Your task to perform on an android device: toggle notifications settings in the gmail app Image 0: 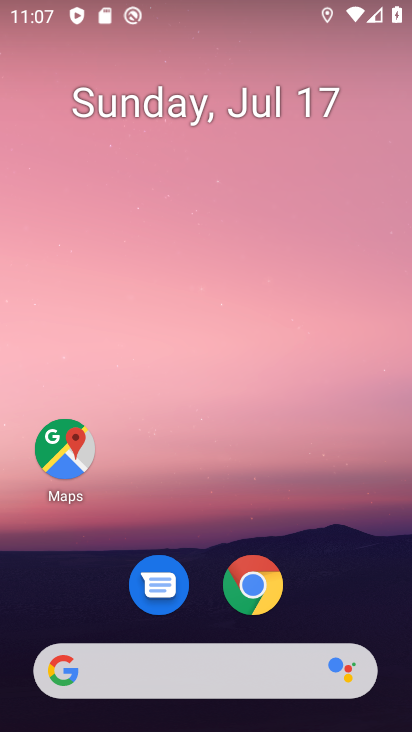
Step 0: drag from (320, 568) to (281, 9)
Your task to perform on an android device: toggle notifications settings in the gmail app Image 1: 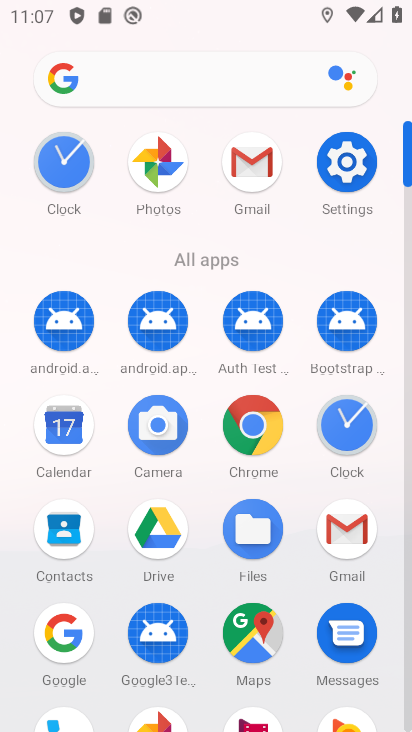
Step 1: click (251, 170)
Your task to perform on an android device: toggle notifications settings in the gmail app Image 2: 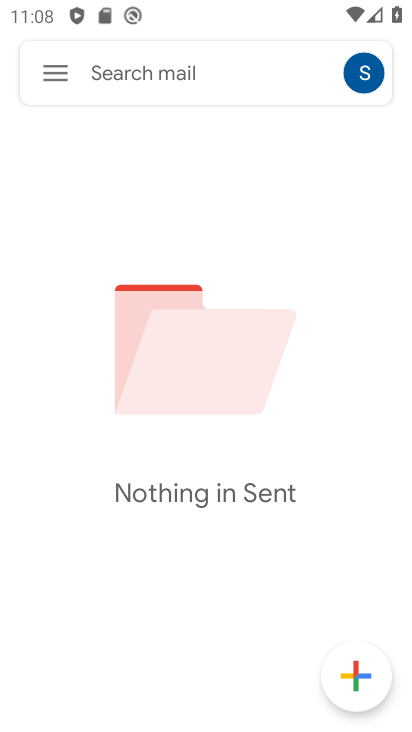
Step 2: press home button
Your task to perform on an android device: toggle notifications settings in the gmail app Image 3: 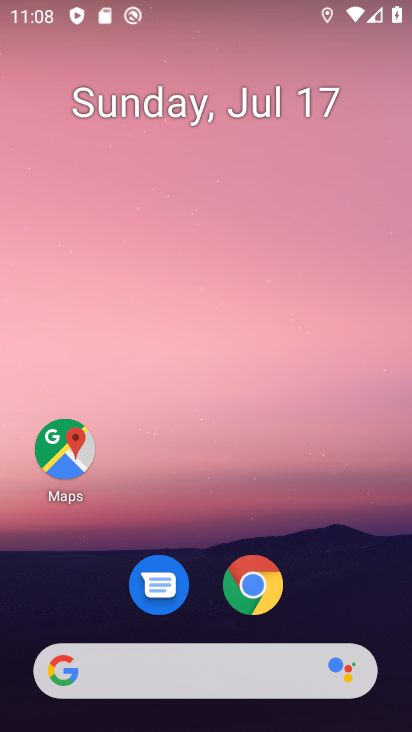
Step 3: drag from (306, 591) to (338, 41)
Your task to perform on an android device: toggle notifications settings in the gmail app Image 4: 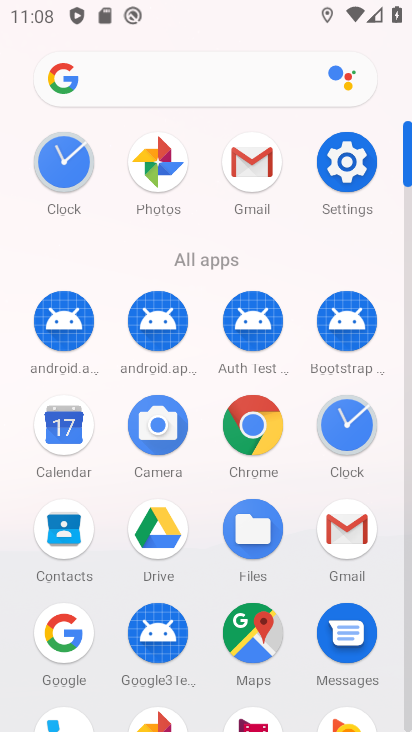
Step 4: click (250, 156)
Your task to perform on an android device: toggle notifications settings in the gmail app Image 5: 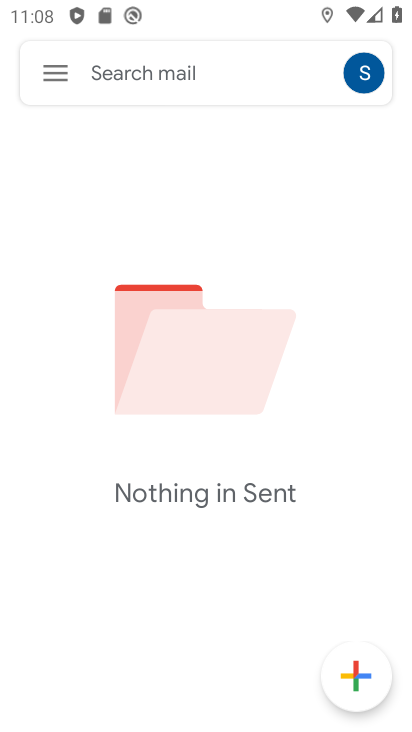
Step 5: click (66, 70)
Your task to perform on an android device: toggle notifications settings in the gmail app Image 6: 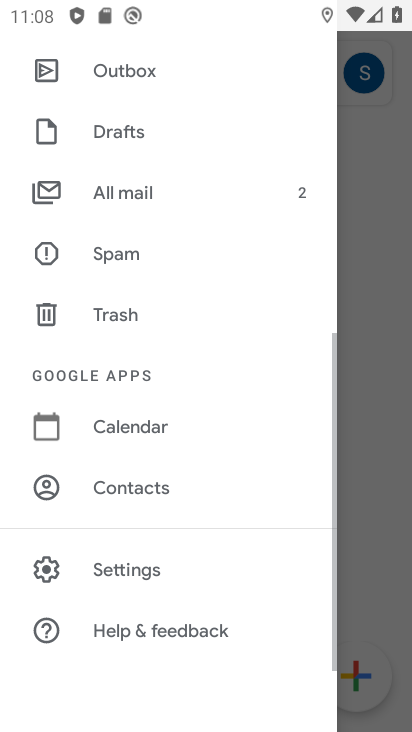
Step 6: click (128, 569)
Your task to perform on an android device: toggle notifications settings in the gmail app Image 7: 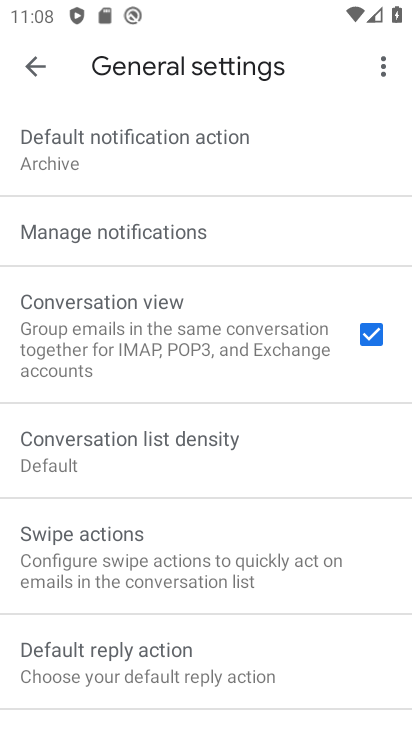
Step 7: click (199, 228)
Your task to perform on an android device: toggle notifications settings in the gmail app Image 8: 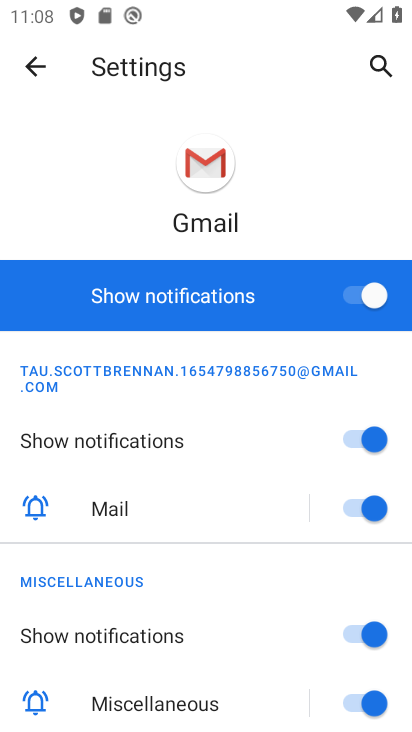
Step 8: click (355, 300)
Your task to perform on an android device: toggle notifications settings in the gmail app Image 9: 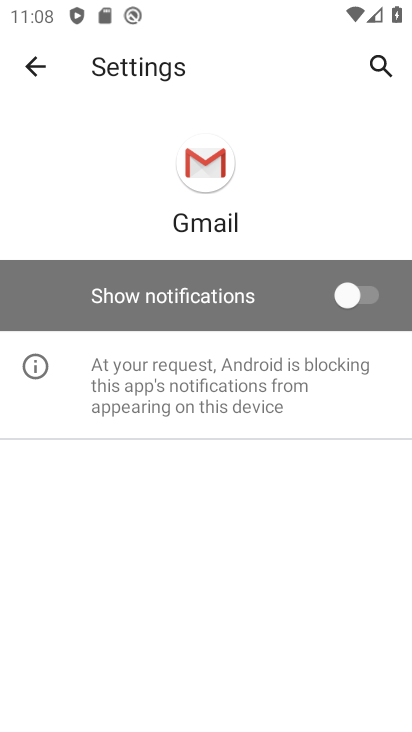
Step 9: task complete